Your task to perform on an android device: Open Chrome and go to the settings page Image 0: 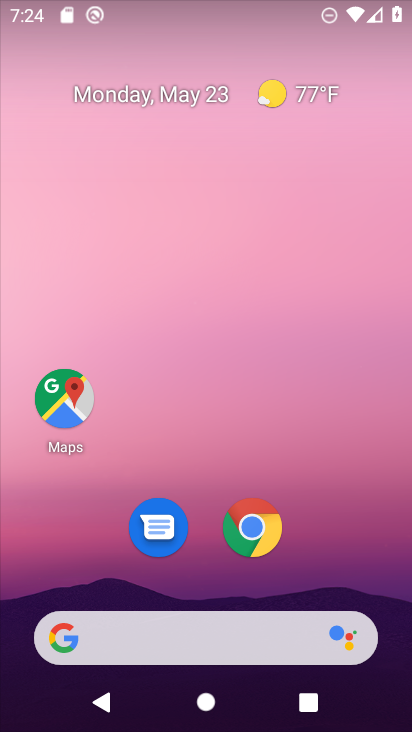
Step 0: press home button
Your task to perform on an android device: Open Chrome and go to the settings page Image 1: 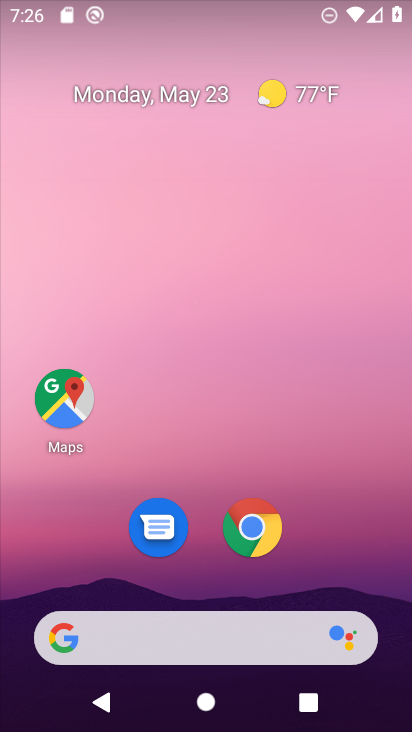
Step 1: drag from (270, 338) to (259, 68)
Your task to perform on an android device: Open Chrome and go to the settings page Image 2: 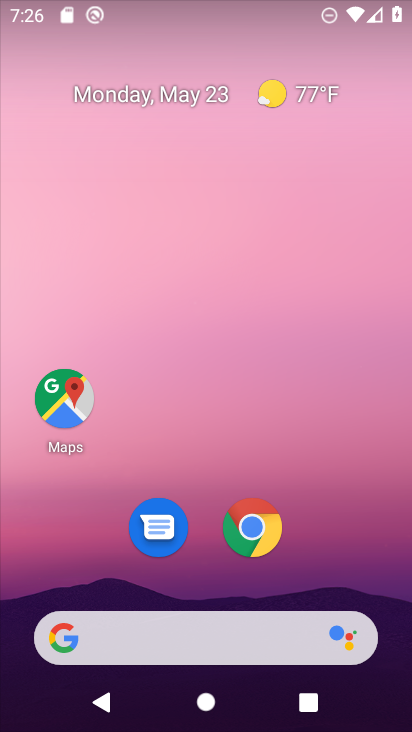
Step 2: drag from (232, 675) to (159, 26)
Your task to perform on an android device: Open Chrome and go to the settings page Image 3: 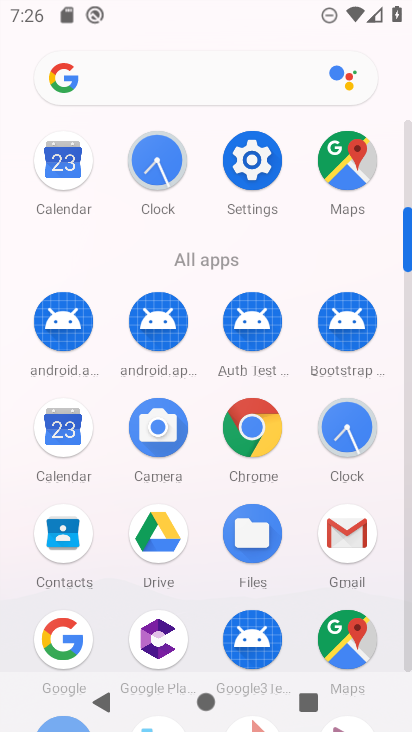
Step 3: click (239, 447)
Your task to perform on an android device: Open Chrome and go to the settings page Image 4: 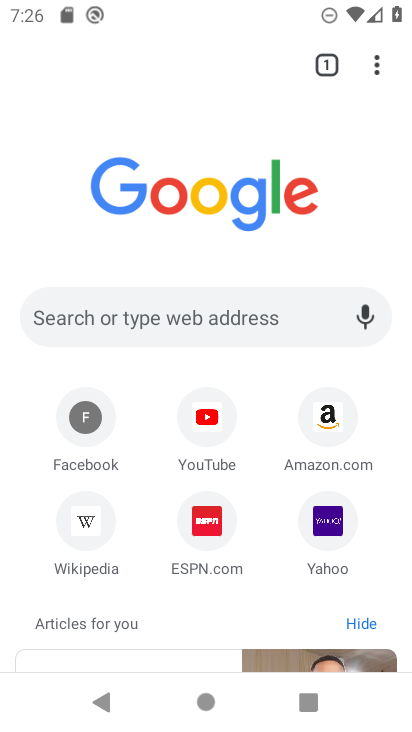
Step 4: click (363, 67)
Your task to perform on an android device: Open Chrome and go to the settings page Image 5: 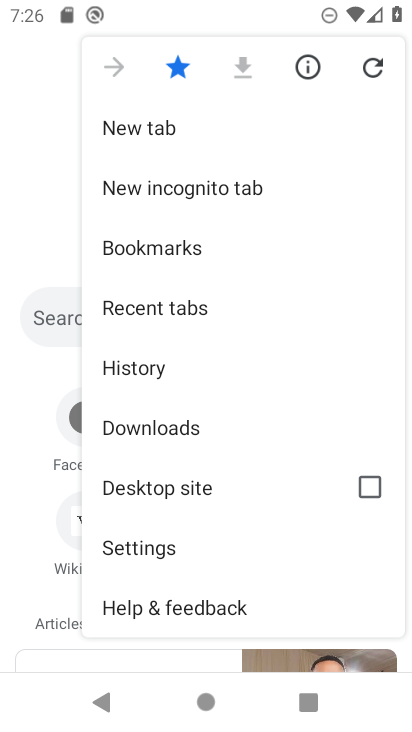
Step 5: click (176, 557)
Your task to perform on an android device: Open Chrome and go to the settings page Image 6: 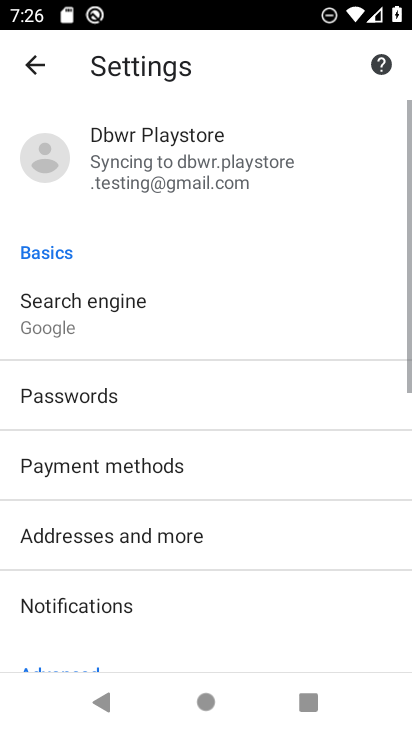
Step 6: task complete